Your task to perform on an android device: turn off translation in the chrome app Image 0: 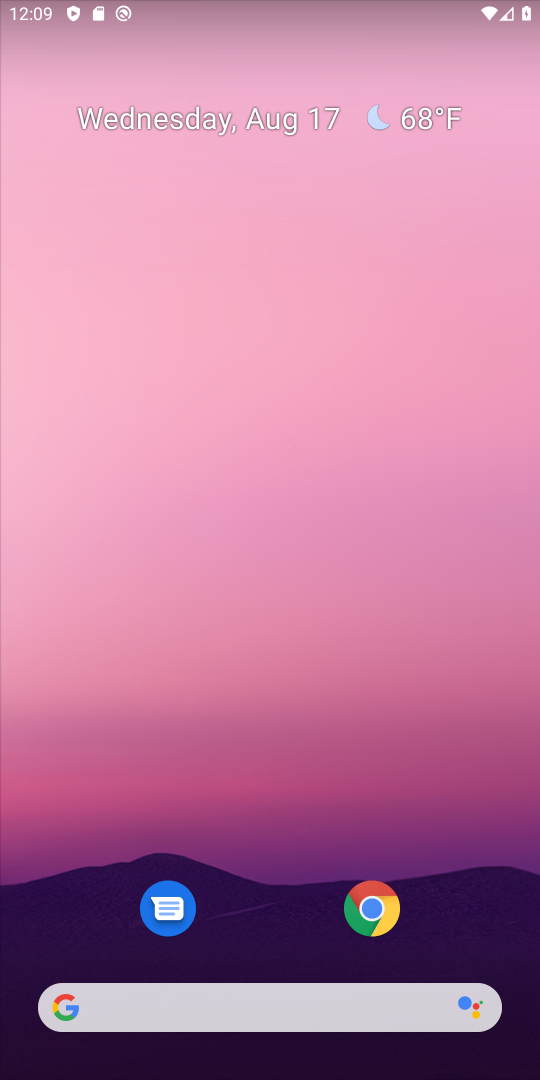
Step 0: click (345, 885)
Your task to perform on an android device: turn off translation in the chrome app Image 1: 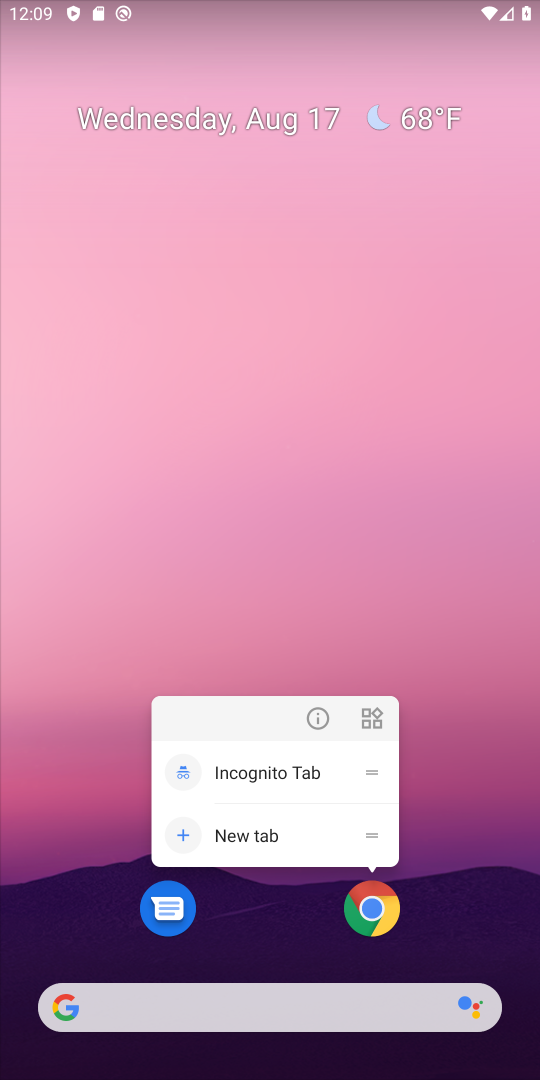
Step 1: click (381, 903)
Your task to perform on an android device: turn off translation in the chrome app Image 2: 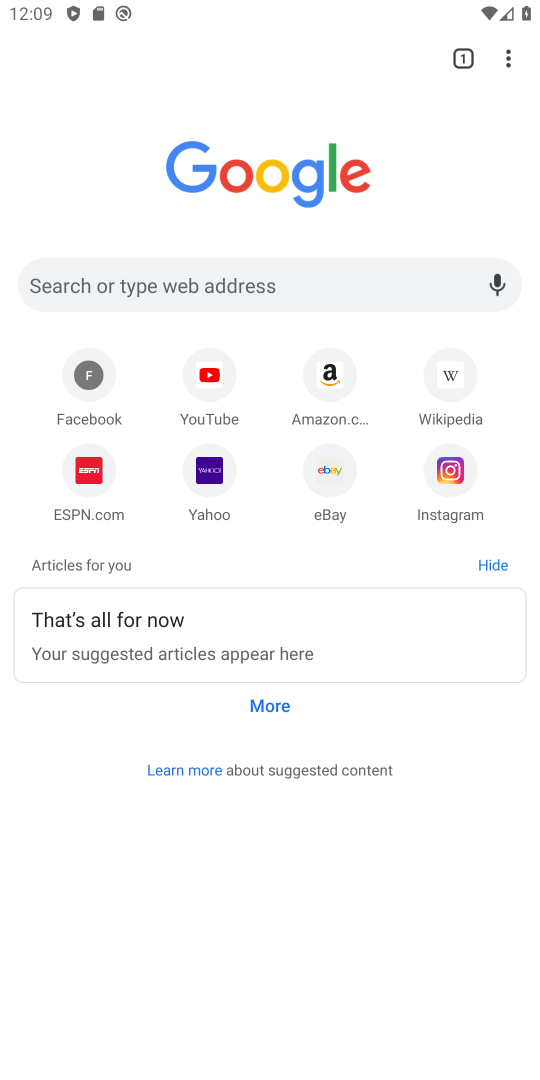
Step 2: click (510, 46)
Your task to perform on an android device: turn off translation in the chrome app Image 3: 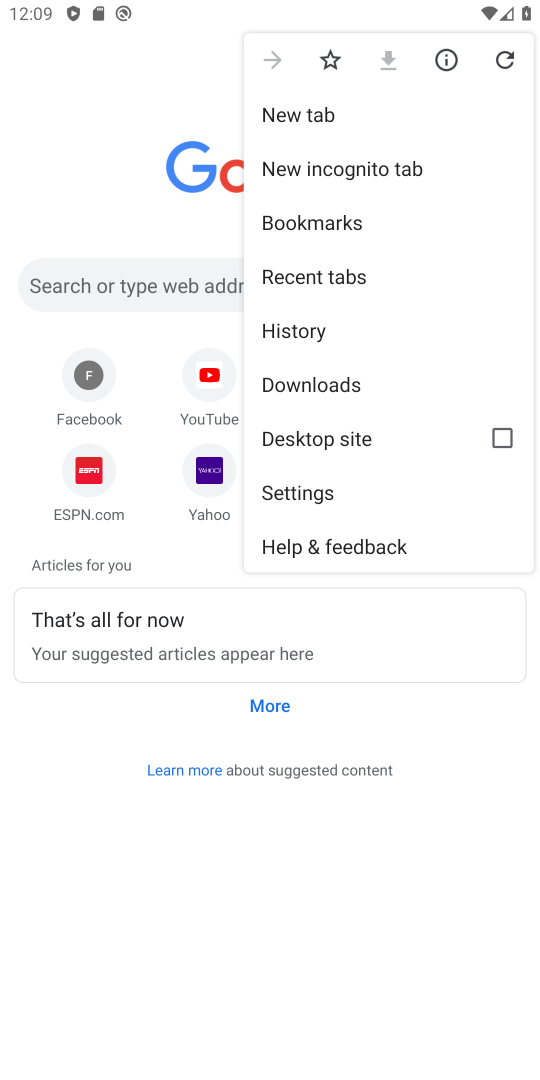
Step 3: click (310, 502)
Your task to perform on an android device: turn off translation in the chrome app Image 4: 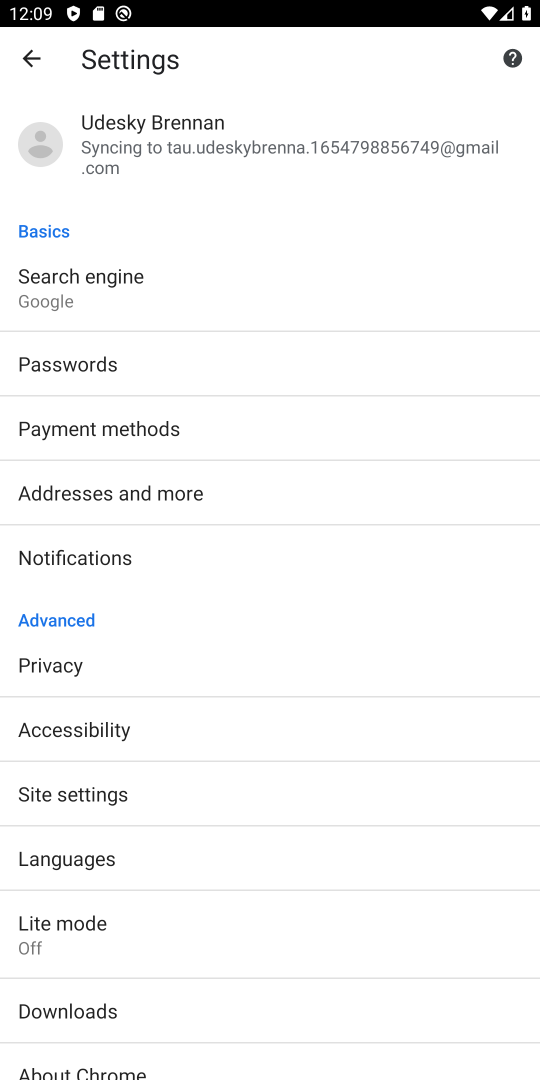
Step 4: click (104, 869)
Your task to perform on an android device: turn off translation in the chrome app Image 5: 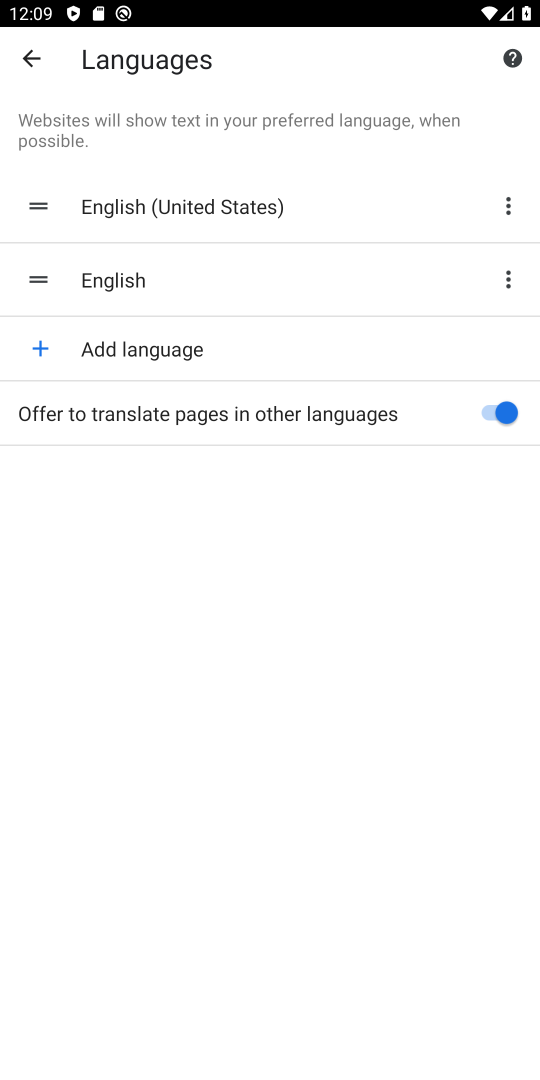
Step 5: click (484, 419)
Your task to perform on an android device: turn off translation in the chrome app Image 6: 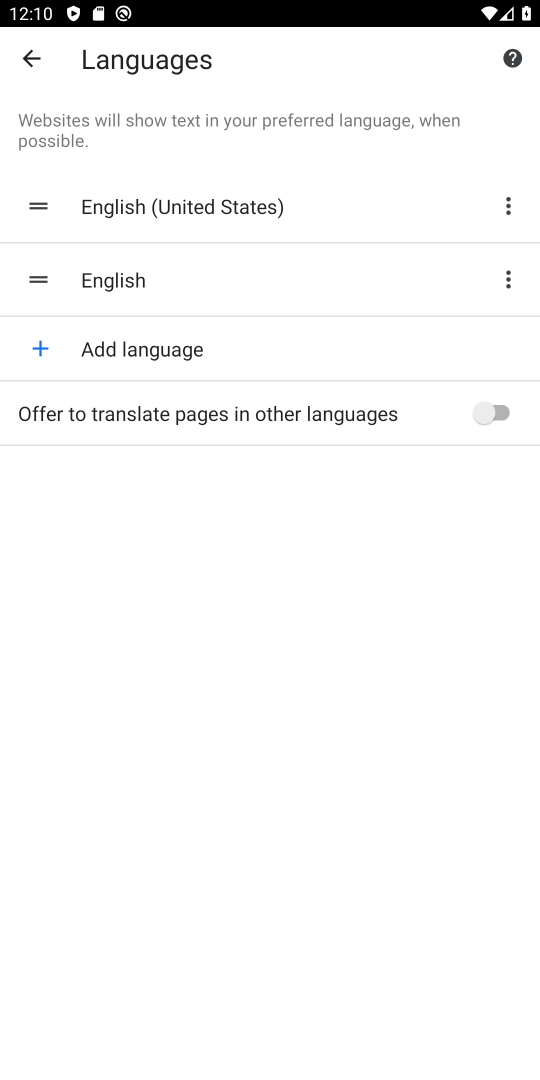
Step 6: task complete